Your task to perform on an android device: turn on showing notifications on the lock screen Image 0: 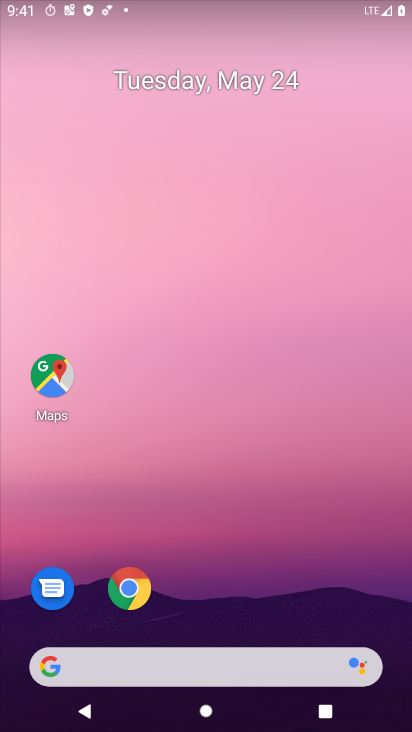
Step 0: drag from (232, 561) to (294, 68)
Your task to perform on an android device: turn on showing notifications on the lock screen Image 1: 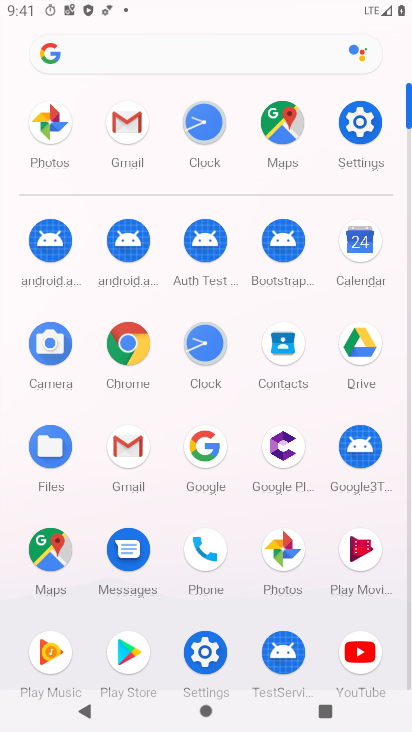
Step 1: click (361, 120)
Your task to perform on an android device: turn on showing notifications on the lock screen Image 2: 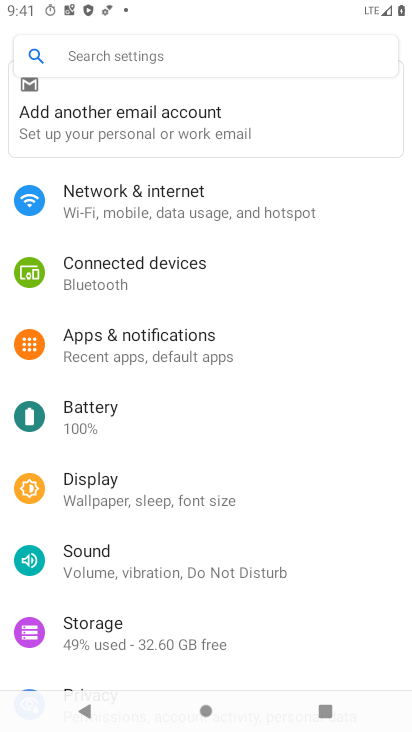
Step 2: click (148, 355)
Your task to perform on an android device: turn on showing notifications on the lock screen Image 3: 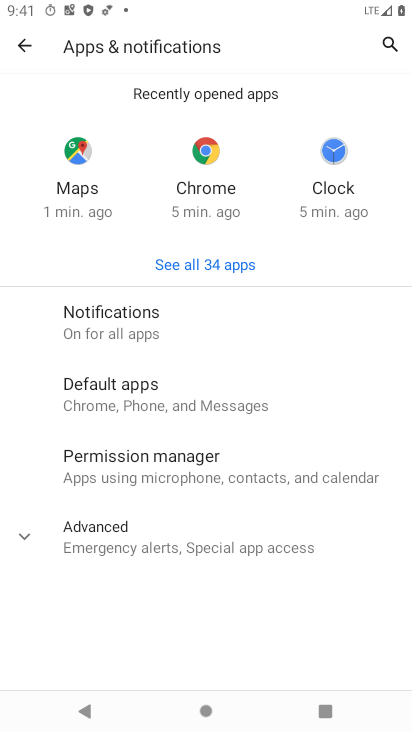
Step 3: click (182, 333)
Your task to perform on an android device: turn on showing notifications on the lock screen Image 4: 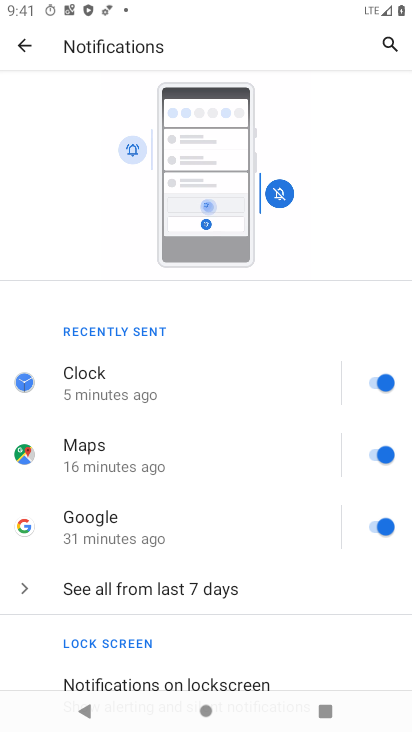
Step 4: drag from (196, 642) to (265, 279)
Your task to perform on an android device: turn on showing notifications on the lock screen Image 5: 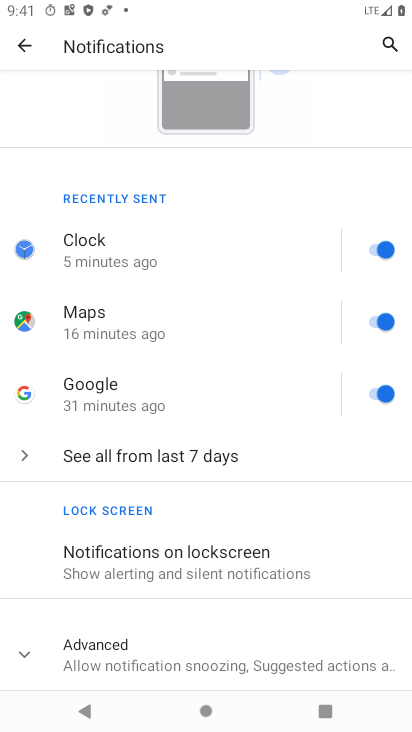
Step 5: click (148, 545)
Your task to perform on an android device: turn on showing notifications on the lock screen Image 6: 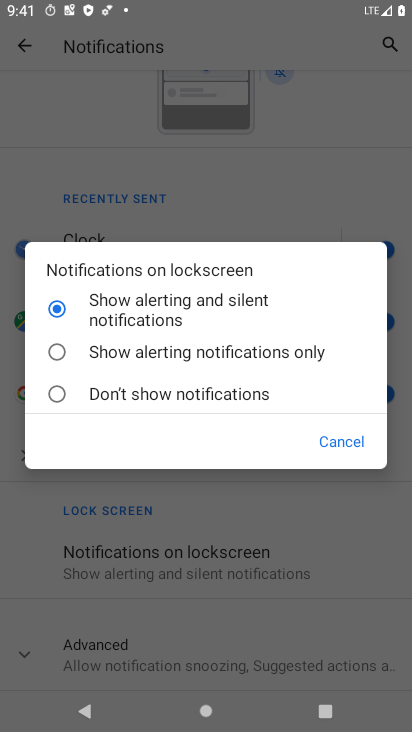
Step 6: click (60, 296)
Your task to perform on an android device: turn on showing notifications on the lock screen Image 7: 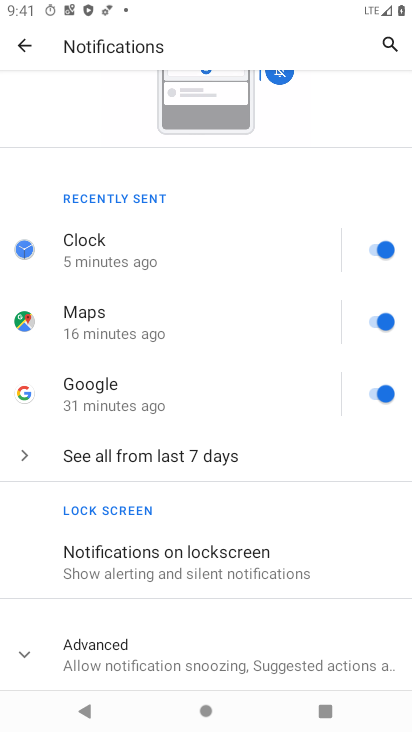
Step 7: task complete